Your task to perform on an android device: View the shopping cart on amazon. Search for "macbook pro" on amazon, select the first entry, and add it to the cart. Image 0: 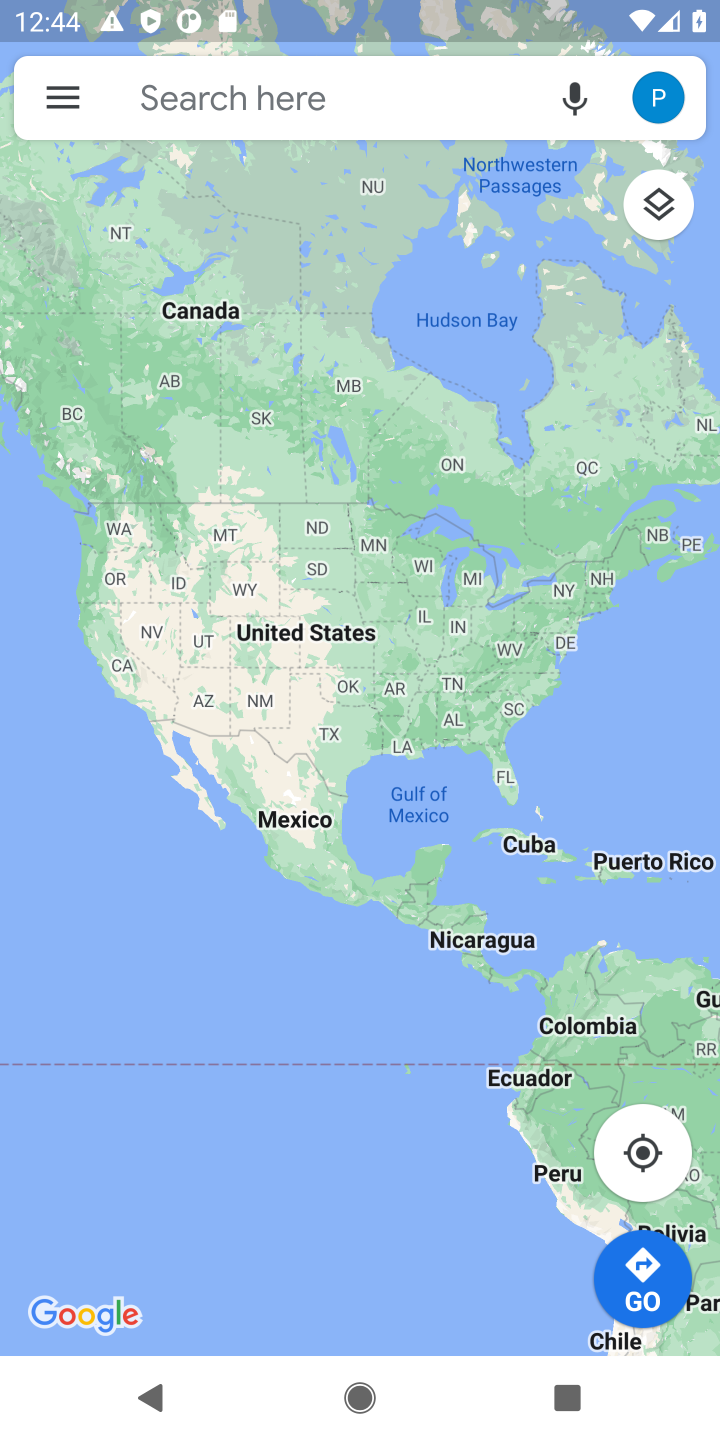
Step 0: press home button
Your task to perform on an android device: View the shopping cart on amazon. Search for "macbook pro" on amazon, select the first entry, and add it to the cart. Image 1: 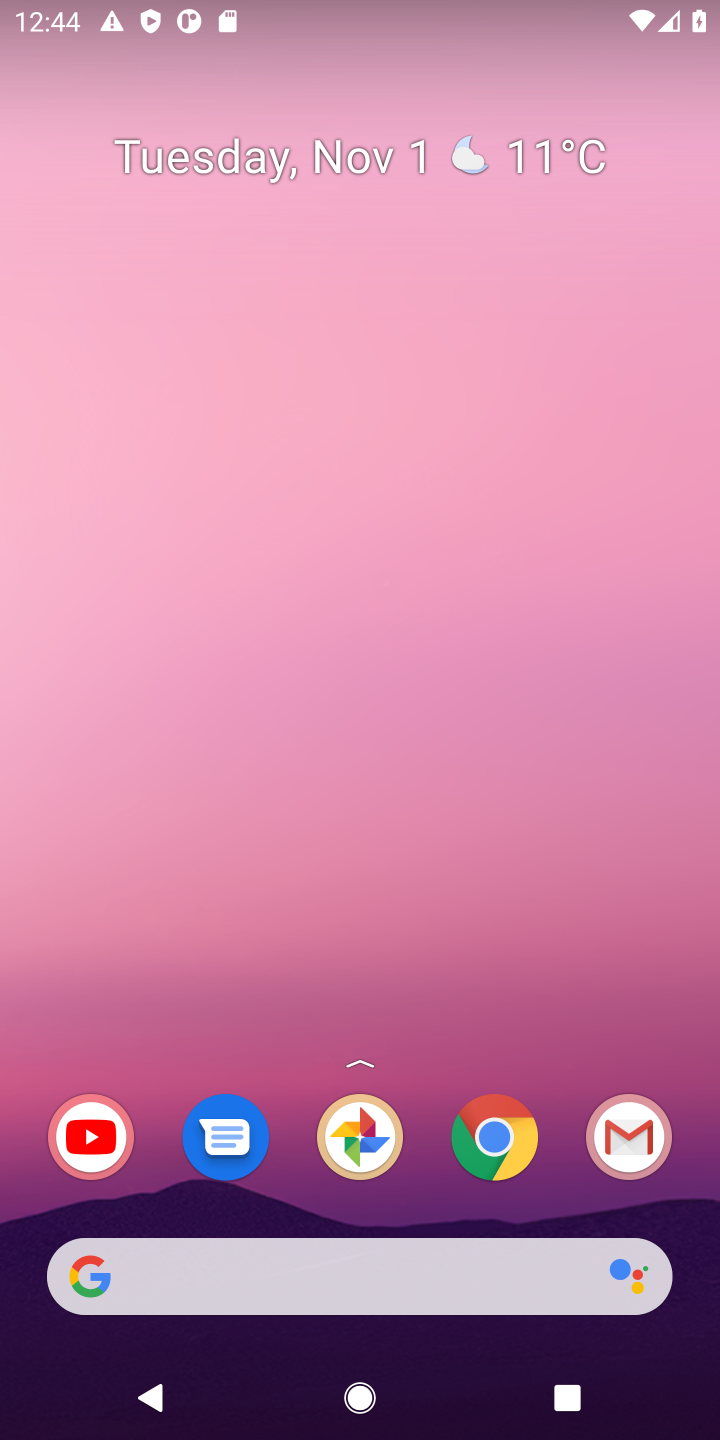
Step 1: click (512, 1148)
Your task to perform on an android device: View the shopping cart on amazon. Search for "macbook pro" on amazon, select the first entry, and add it to the cart. Image 2: 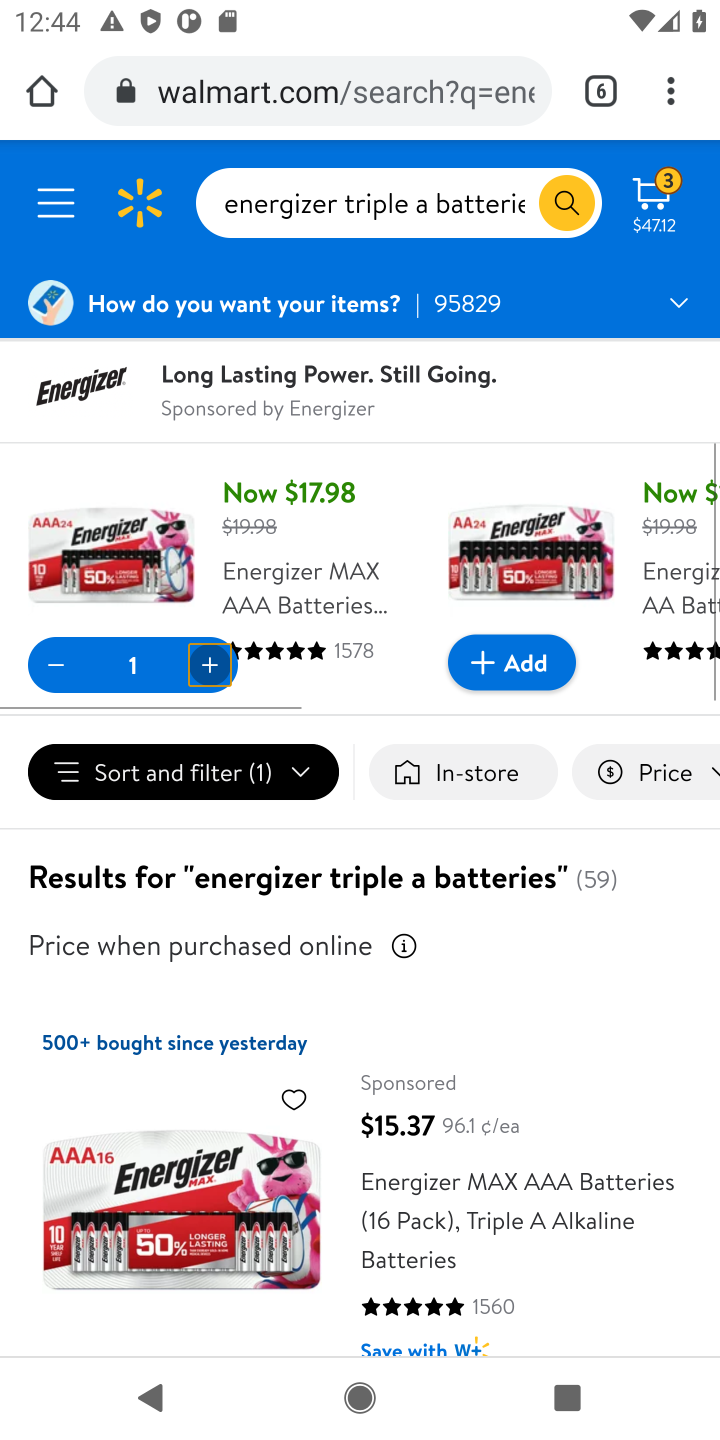
Step 2: click (599, 76)
Your task to perform on an android device: View the shopping cart on amazon. Search for "macbook pro" on amazon, select the first entry, and add it to the cart. Image 3: 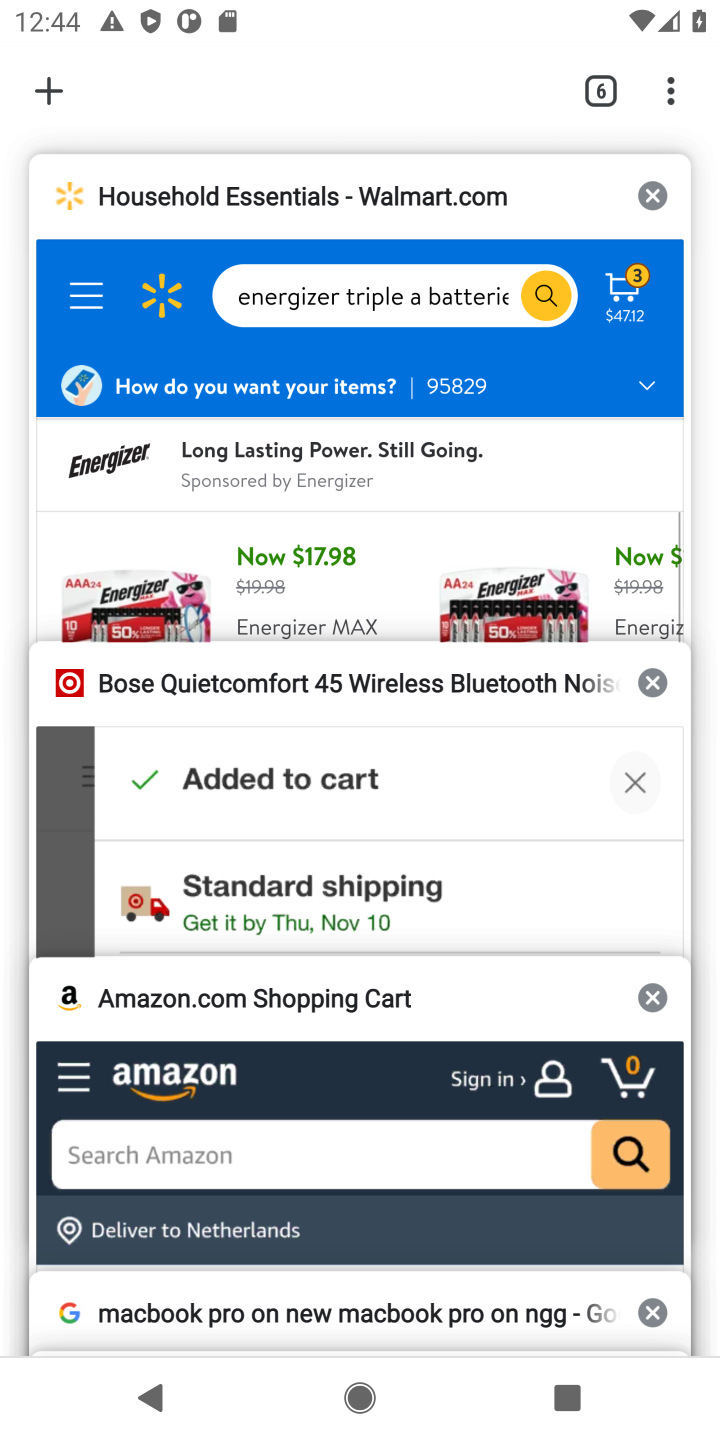
Step 3: click (417, 1080)
Your task to perform on an android device: View the shopping cart on amazon. Search for "macbook pro" on amazon, select the first entry, and add it to the cart. Image 4: 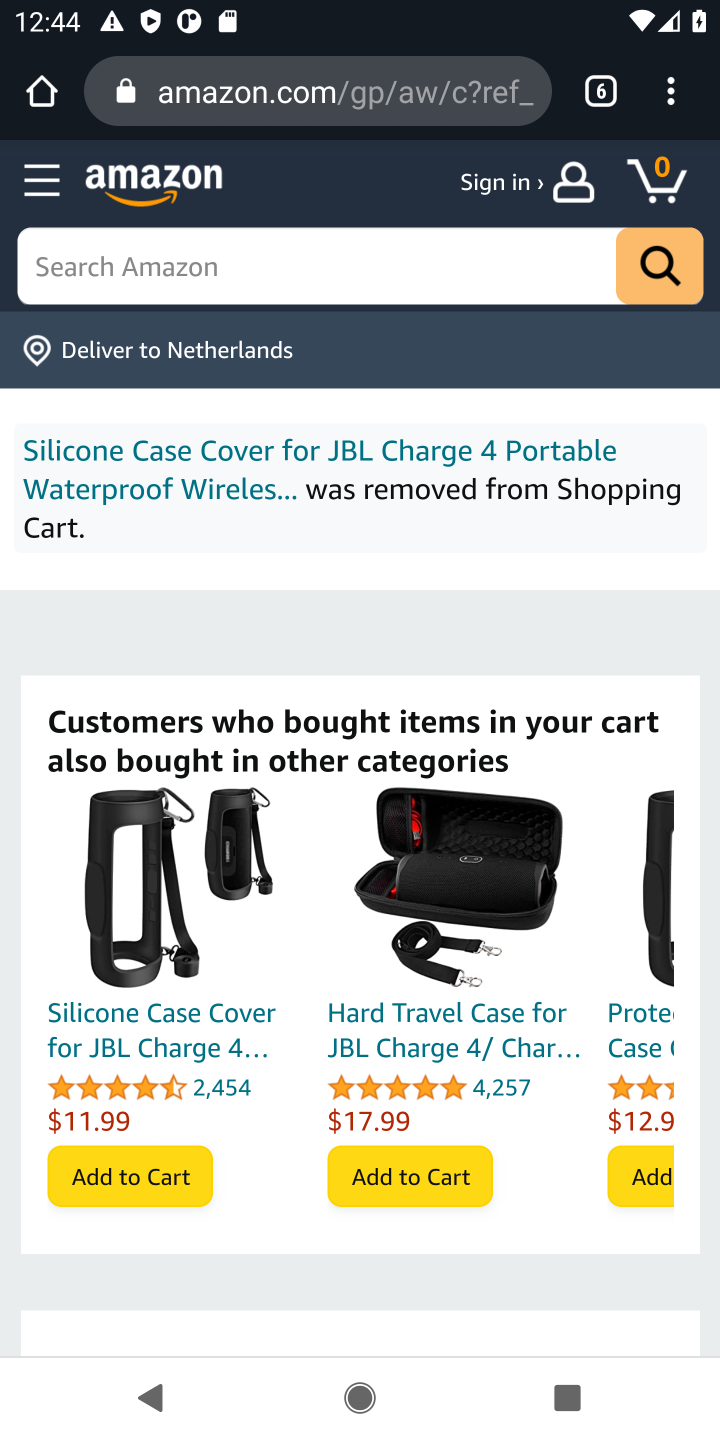
Step 4: click (137, 242)
Your task to perform on an android device: View the shopping cart on amazon. Search for "macbook pro" on amazon, select the first entry, and add it to the cart. Image 5: 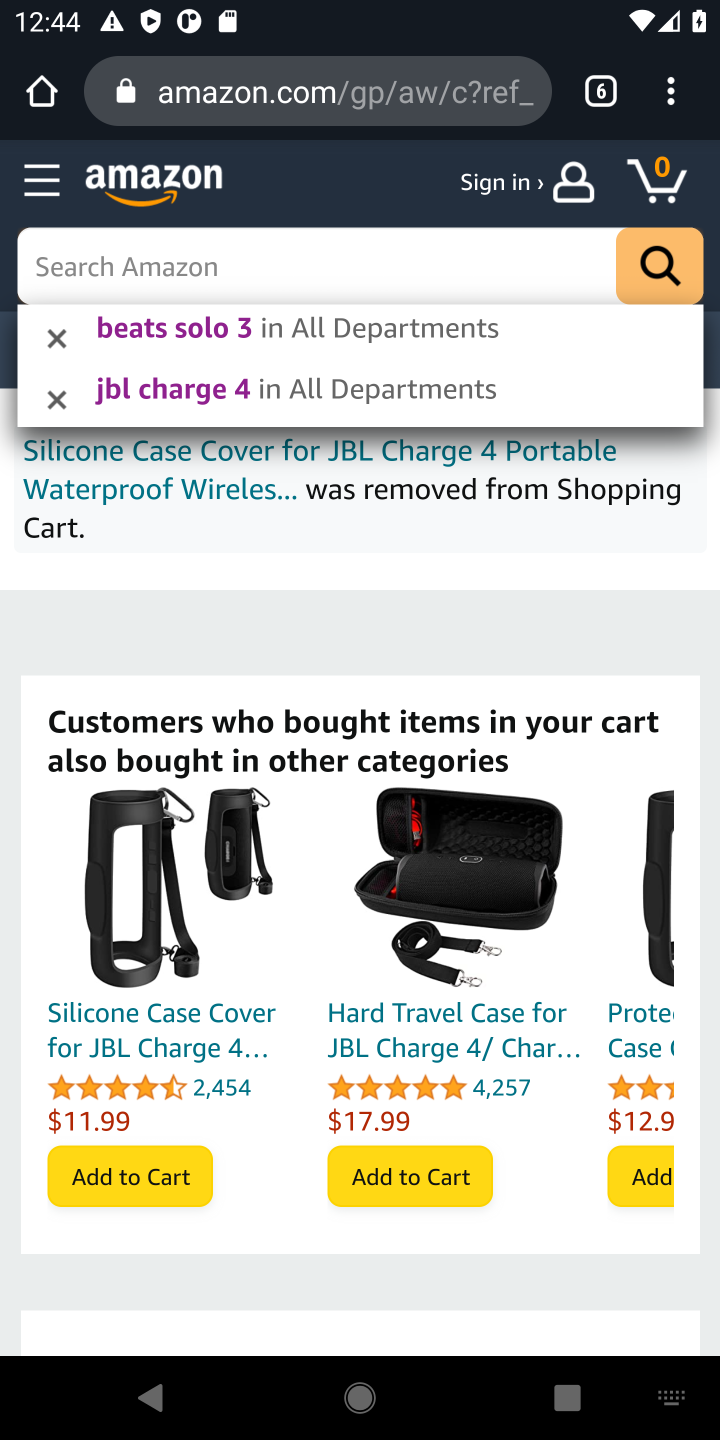
Step 5: type "macbook pro"
Your task to perform on an android device: View the shopping cart on amazon. Search for "macbook pro" on amazon, select the first entry, and add it to the cart. Image 6: 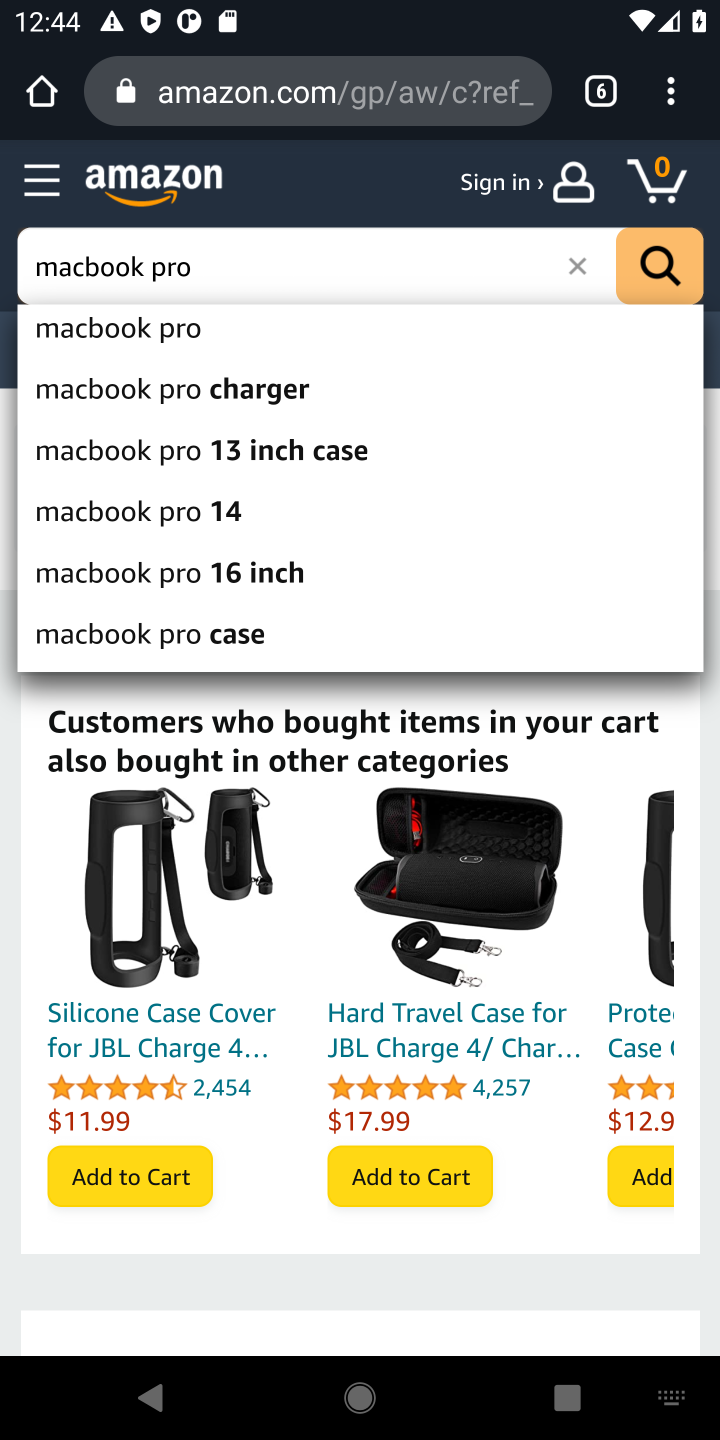
Step 6: click (162, 328)
Your task to perform on an android device: View the shopping cart on amazon. Search for "macbook pro" on amazon, select the first entry, and add it to the cart. Image 7: 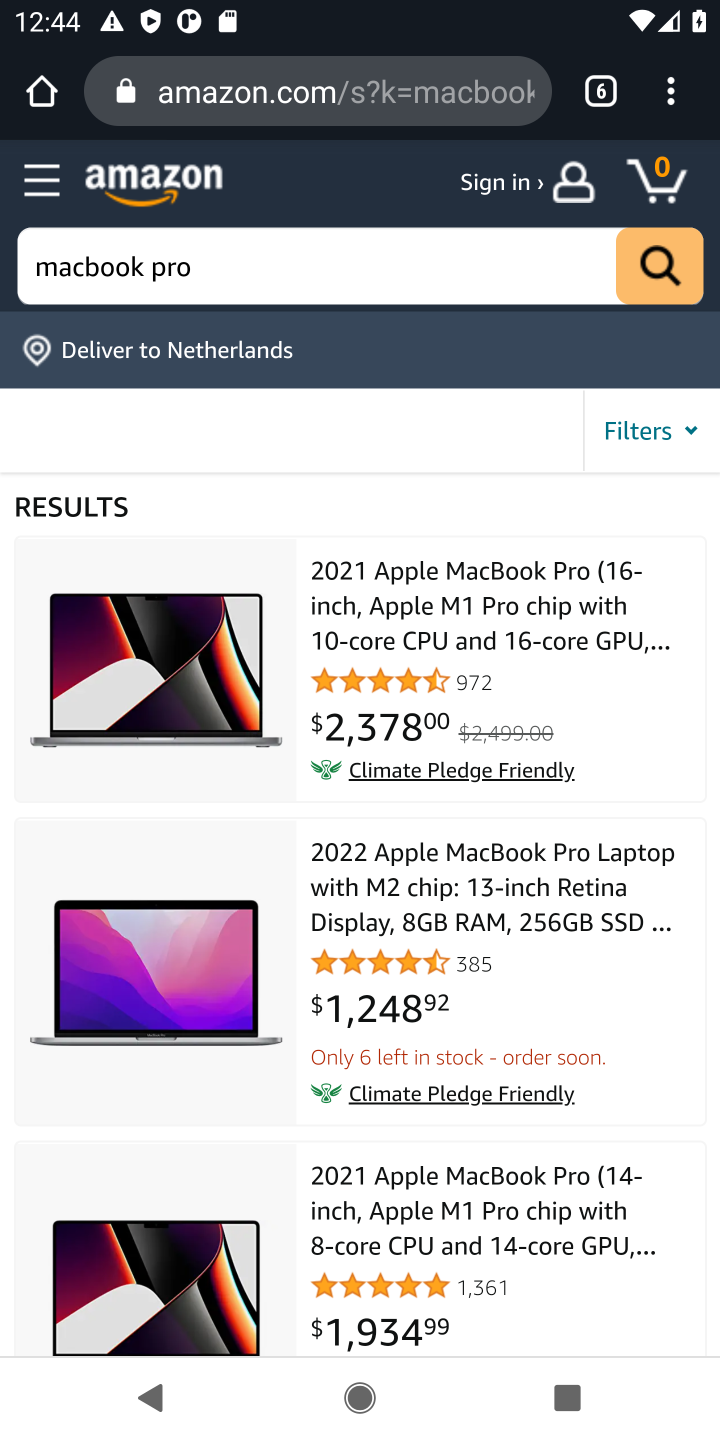
Step 7: click (480, 571)
Your task to perform on an android device: View the shopping cart on amazon. Search for "macbook pro" on amazon, select the first entry, and add it to the cart. Image 8: 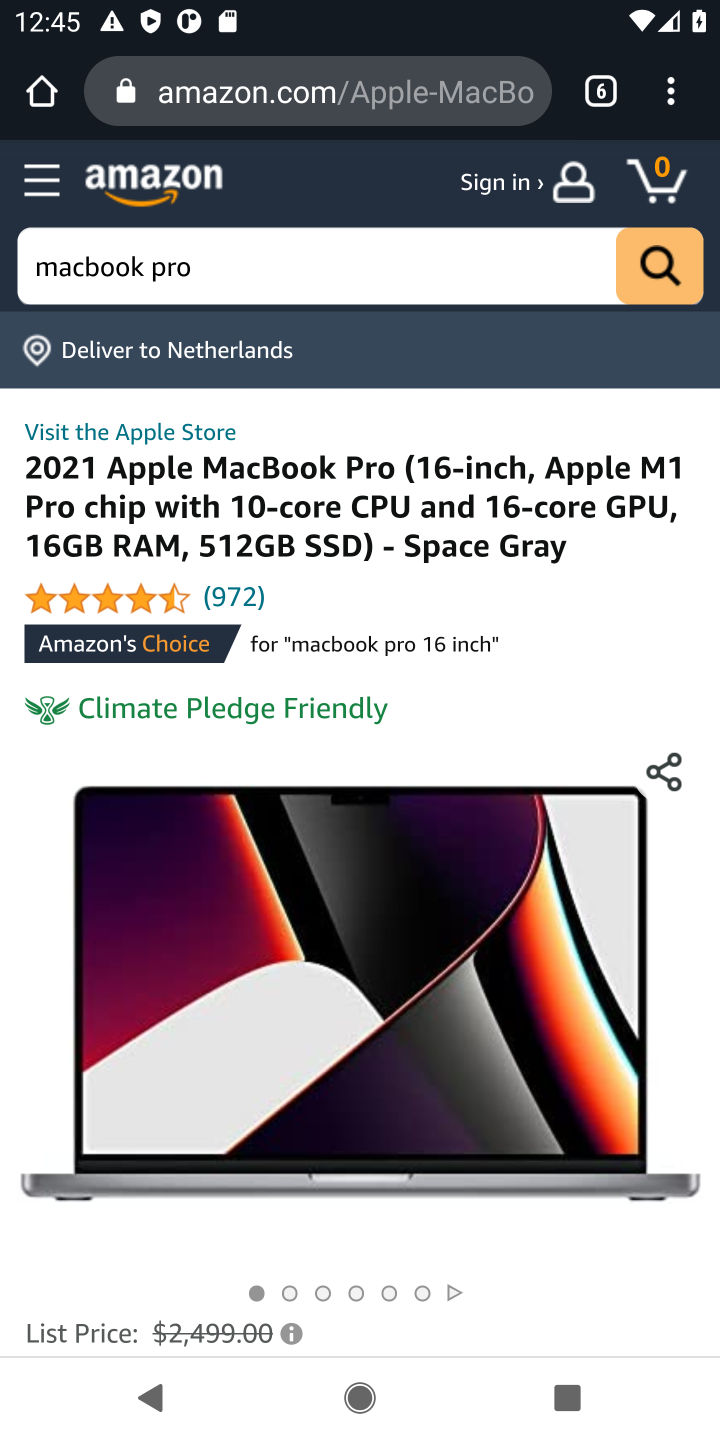
Step 8: drag from (641, 1297) to (591, 364)
Your task to perform on an android device: View the shopping cart on amazon. Search for "macbook pro" on amazon, select the first entry, and add it to the cart. Image 9: 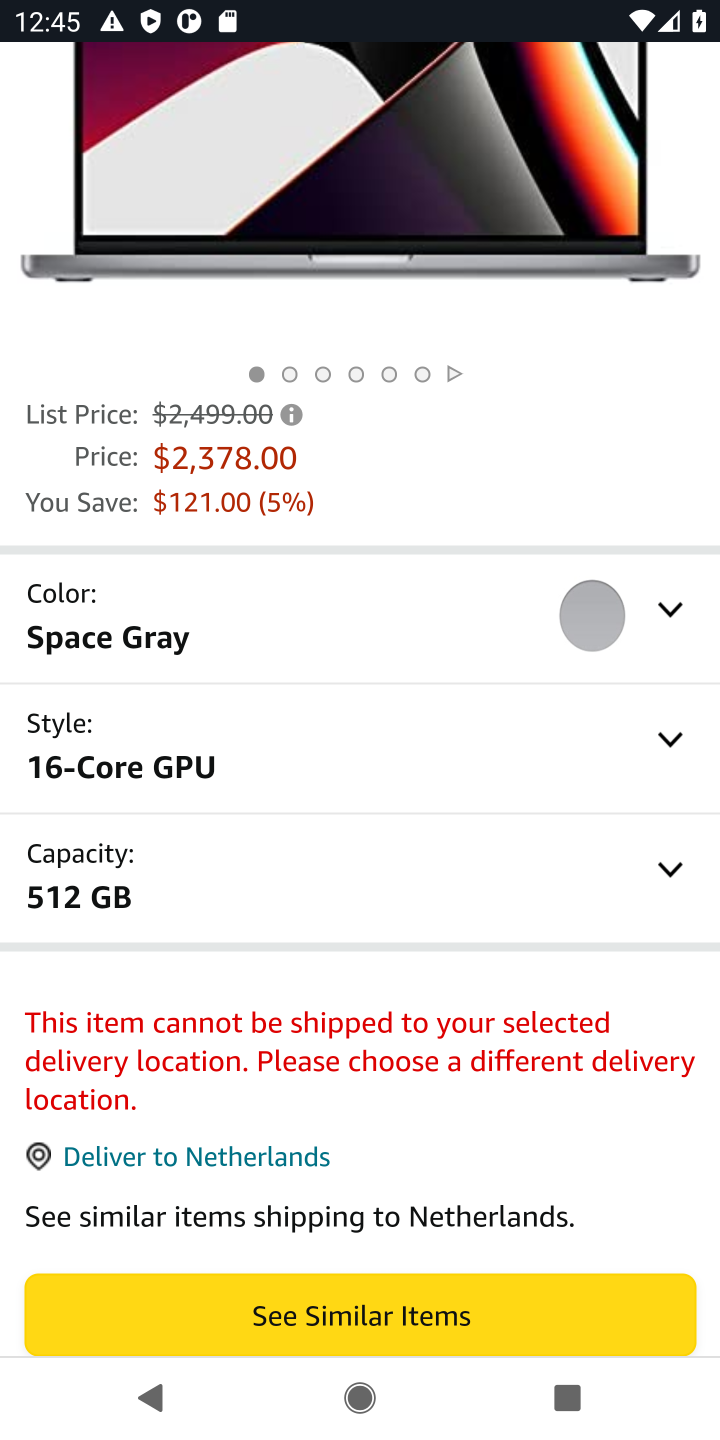
Step 9: click (339, 1326)
Your task to perform on an android device: View the shopping cart on amazon. Search for "macbook pro" on amazon, select the first entry, and add it to the cart. Image 10: 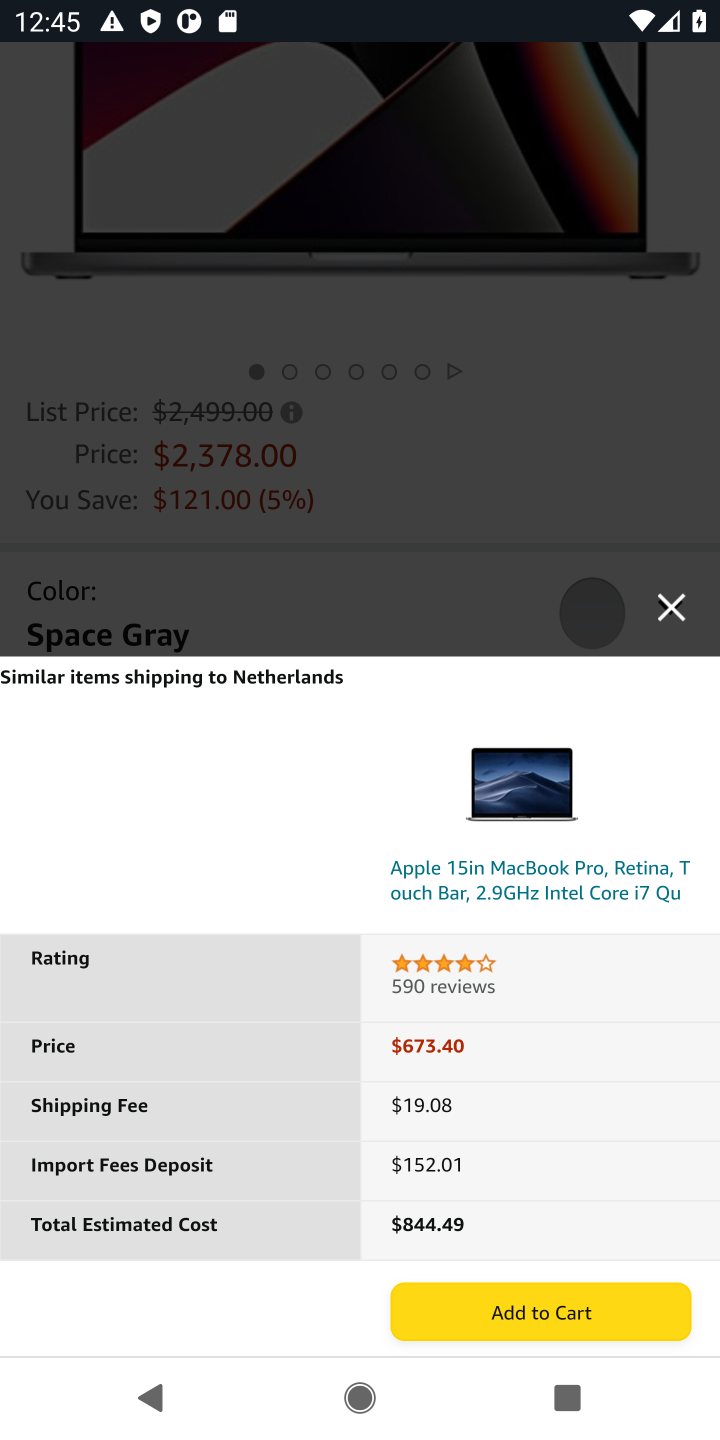
Step 10: click (504, 1309)
Your task to perform on an android device: View the shopping cart on amazon. Search for "macbook pro" on amazon, select the first entry, and add it to the cart. Image 11: 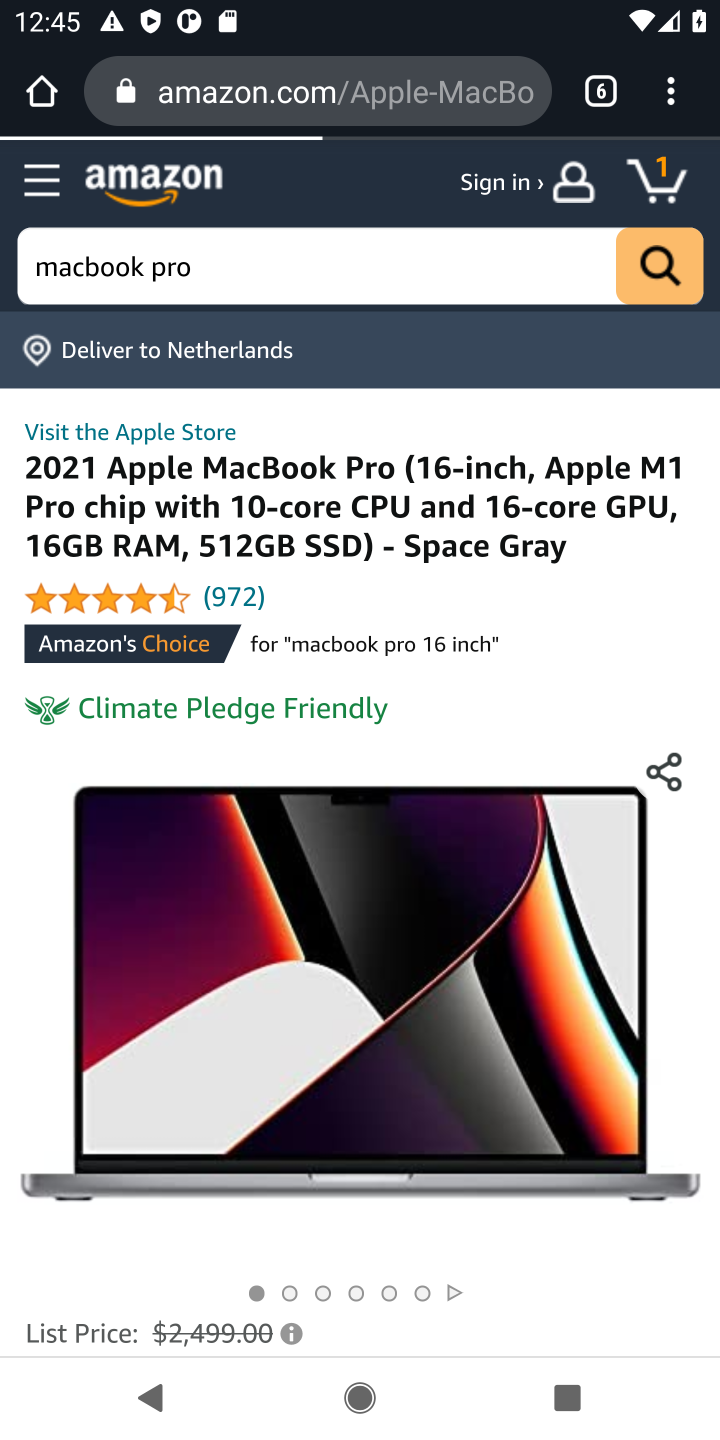
Step 11: task complete